Your task to perform on an android device: Do I have any events today? Image 0: 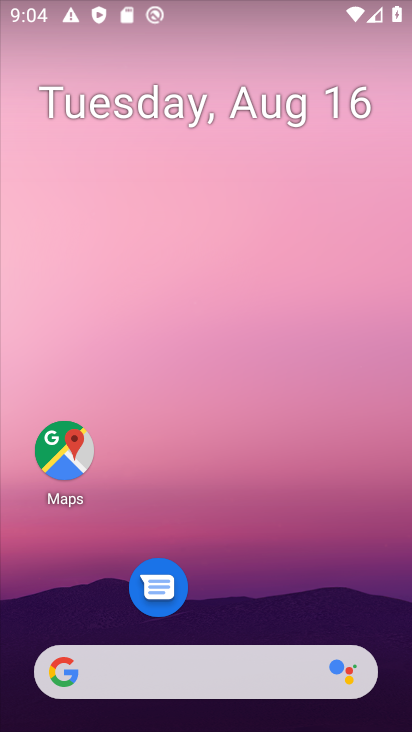
Step 0: drag from (222, 632) to (227, 9)
Your task to perform on an android device: Do I have any events today? Image 1: 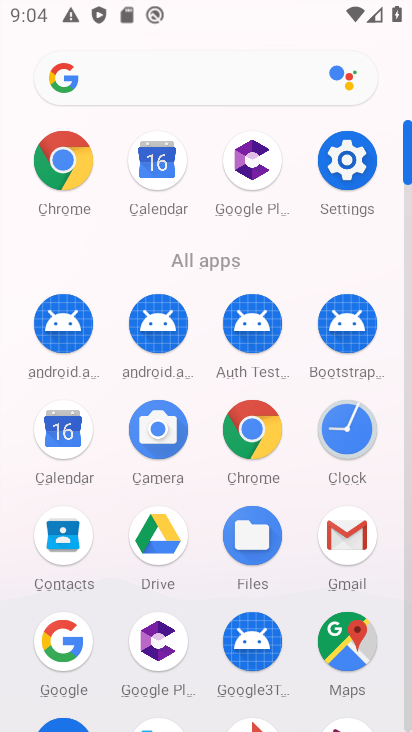
Step 1: click (39, 465)
Your task to perform on an android device: Do I have any events today? Image 2: 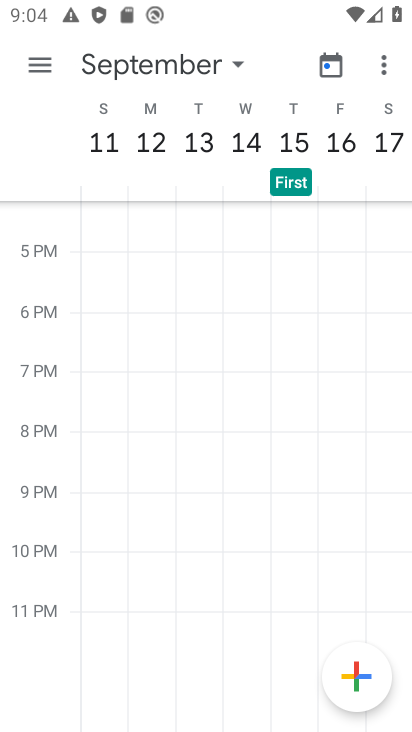
Step 2: click (337, 55)
Your task to perform on an android device: Do I have any events today? Image 3: 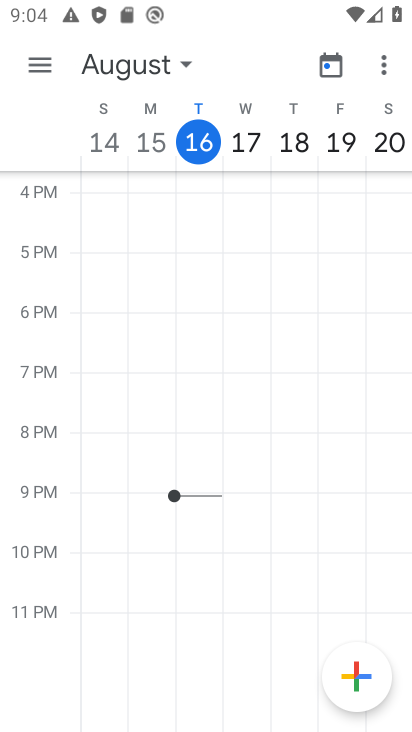
Step 3: click (206, 147)
Your task to perform on an android device: Do I have any events today? Image 4: 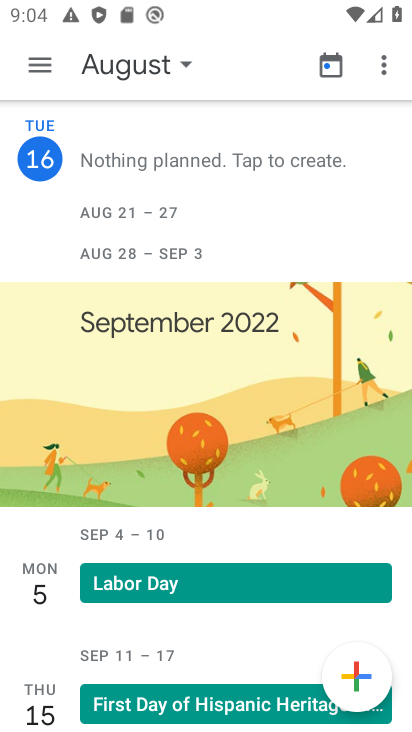
Step 4: task complete